Your task to perform on an android device: add a label to a message in the gmail app Image 0: 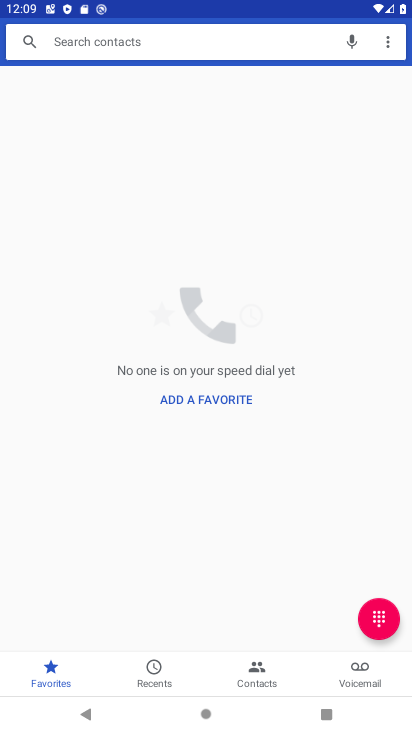
Step 0: press home button
Your task to perform on an android device: add a label to a message in the gmail app Image 1: 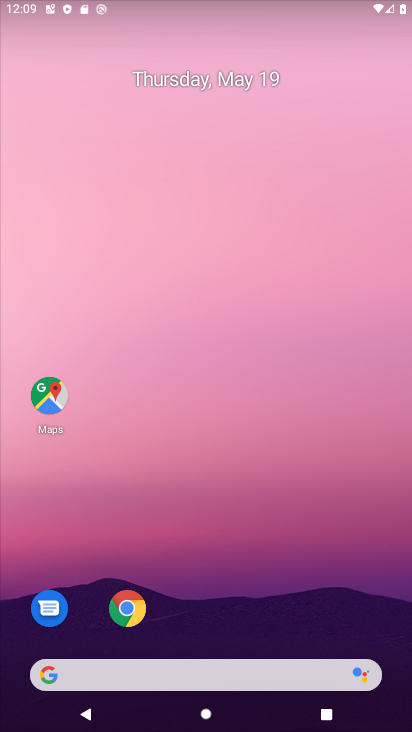
Step 1: drag from (259, 600) to (245, 242)
Your task to perform on an android device: add a label to a message in the gmail app Image 2: 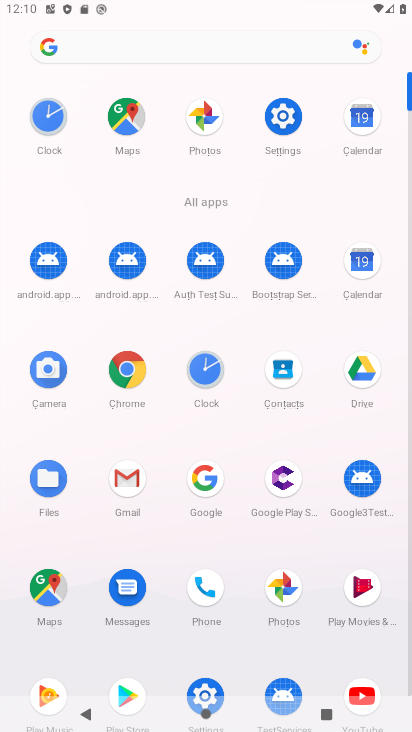
Step 2: click (130, 476)
Your task to perform on an android device: add a label to a message in the gmail app Image 3: 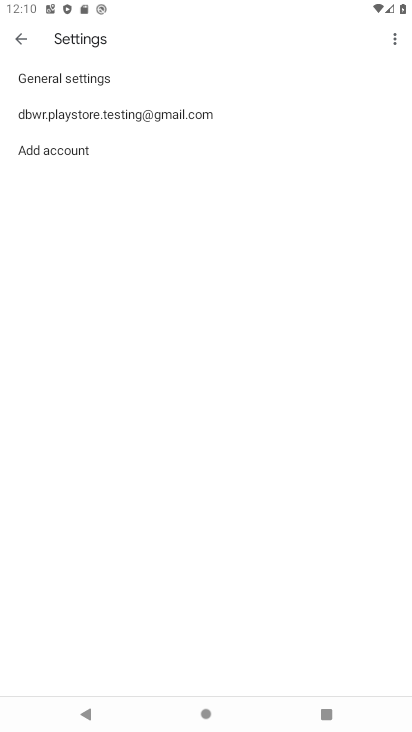
Step 3: click (96, 104)
Your task to perform on an android device: add a label to a message in the gmail app Image 4: 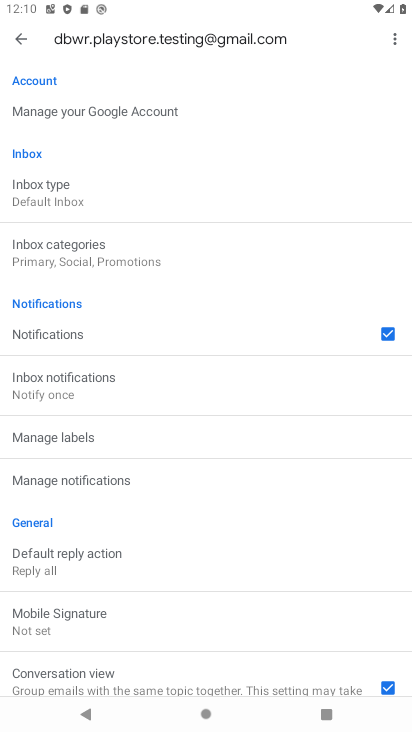
Step 4: click (29, 27)
Your task to perform on an android device: add a label to a message in the gmail app Image 5: 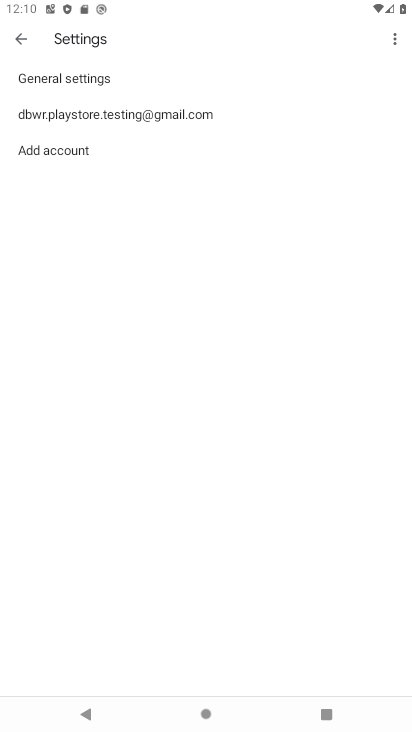
Step 5: click (33, 35)
Your task to perform on an android device: add a label to a message in the gmail app Image 6: 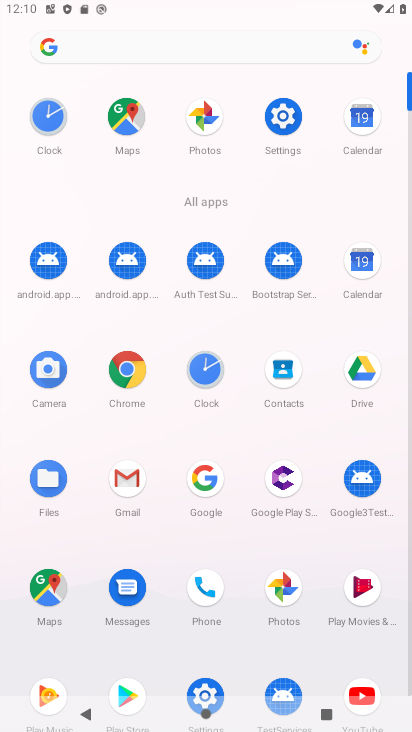
Step 6: click (131, 475)
Your task to perform on an android device: add a label to a message in the gmail app Image 7: 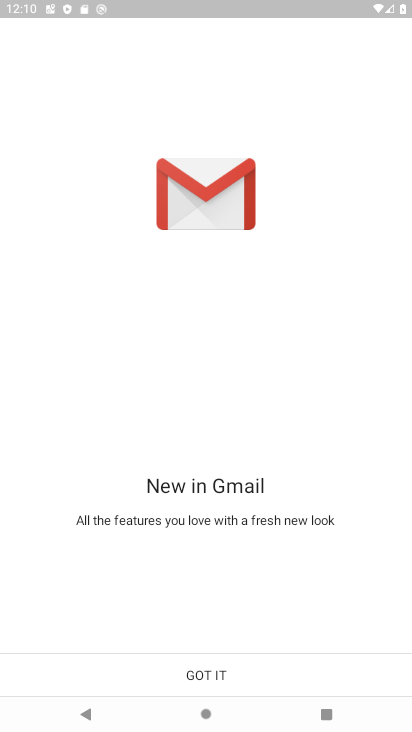
Step 7: click (228, 669)
Your task to perform on an android device: add a label to a message in the gmail app Image 8: 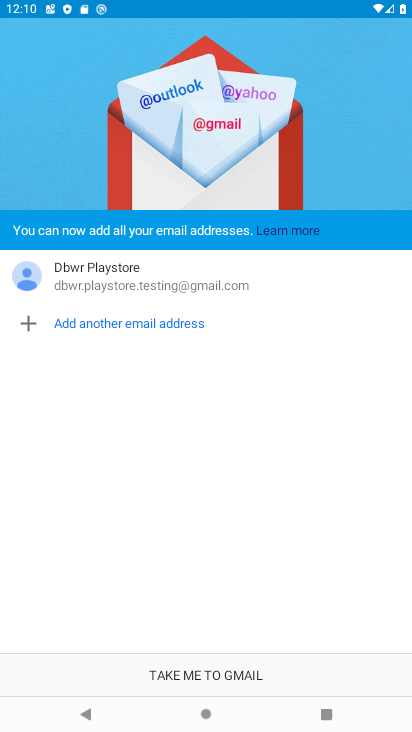
Step 8: click (226, 669)
Your task to perform on an android device: add a label to a message in the gmail app Image 9: 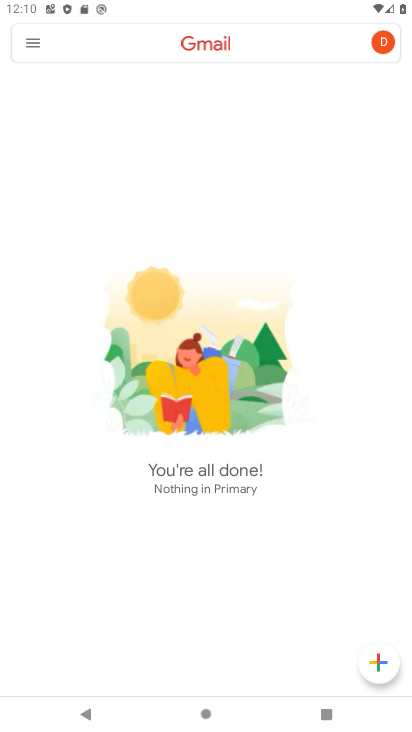
Step 9: click (31, 45)
Your task to perform on an android device: add a label to a message in the gmail app Image 10: 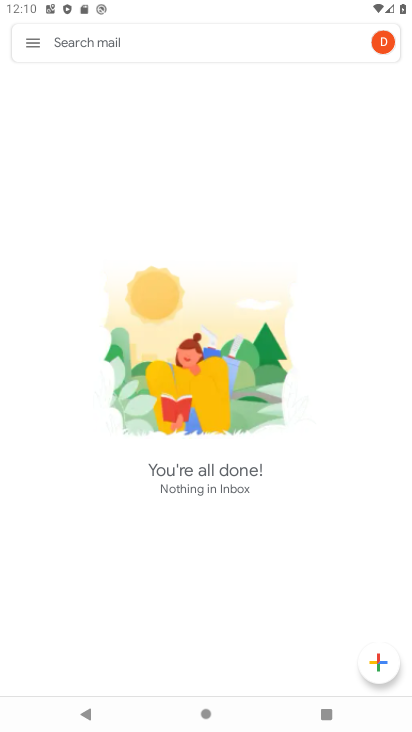
Step 10: click (33, 37)
Your task to perform on an android device: add a label to a message in the gmail app Image 11: 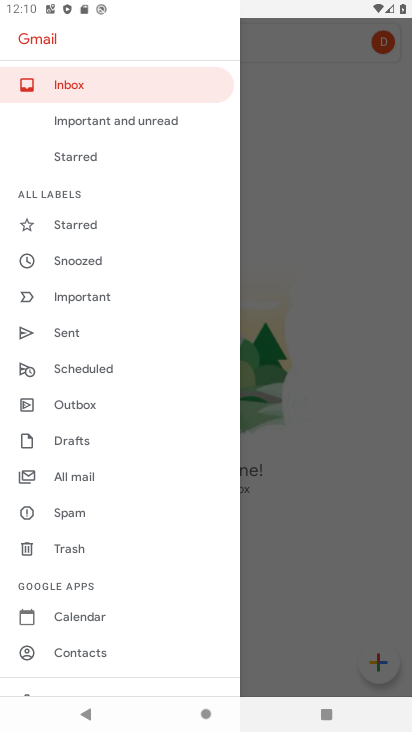
Step 11: click (82, 478)
Your task to perform on an android device: add a label to a message in the gmail app Image 12: 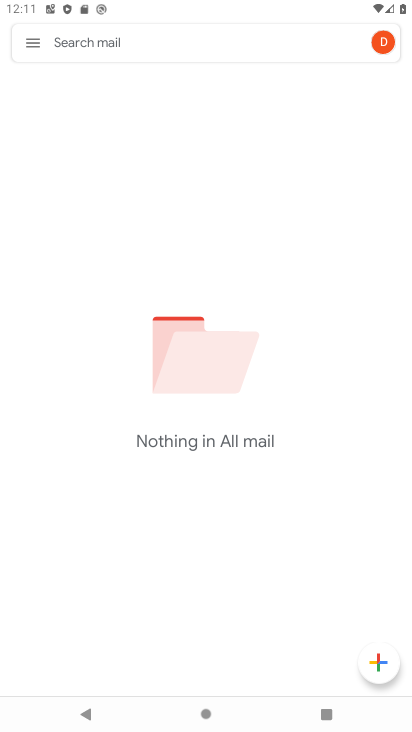
Step 12: task complete